Your task to perform on an android device: Open the map Image 0: 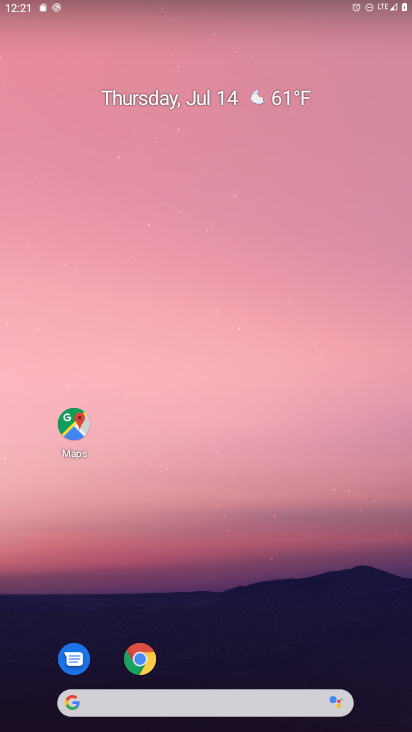
Step 0: click (76, 427)
Your task to perform on an android device: Open the map Image 1: 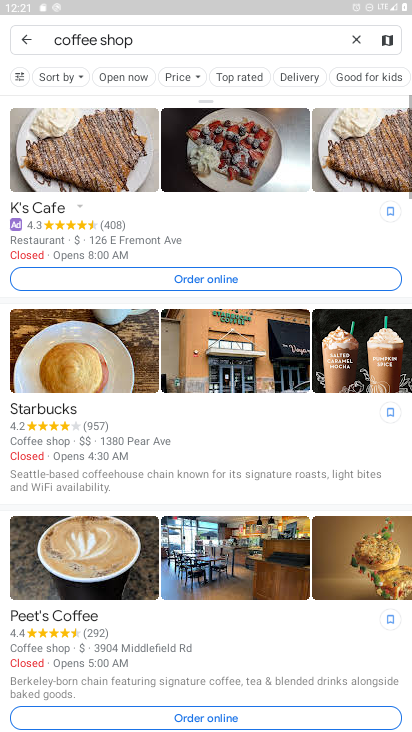
Step 1: press back button
Your task to perform on an android device: Open the map Image 2: 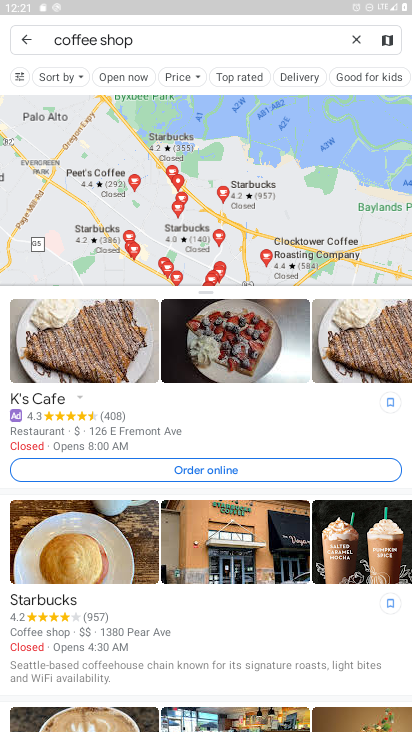
Step 2: click (352, 39)
Your task to perform on an android device: Open the map Image 3: 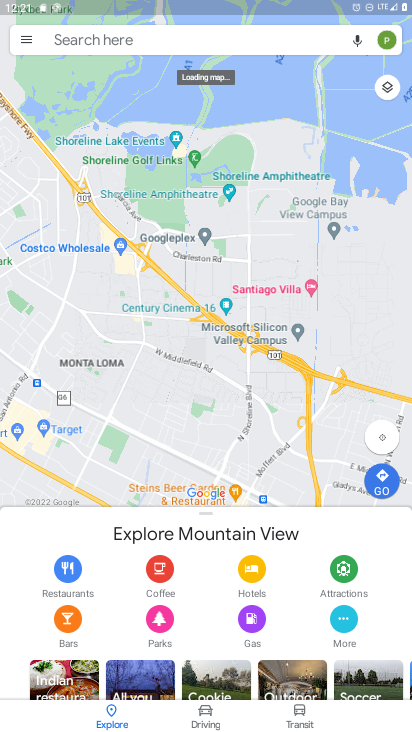
Step 3: task complete